Your task to perform on an android device: turn smart compose on in the gmail app Image 0: 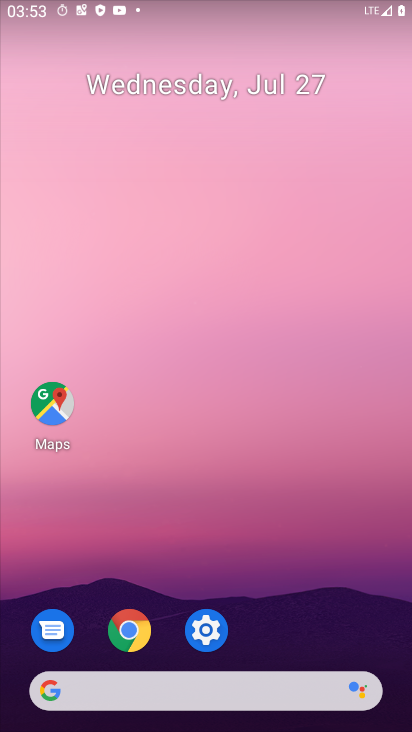
Step 0: drag from (221, 613) to (169, 203)
Your task to perform on an android device: turn smart compose on in the gmail app Image 1: 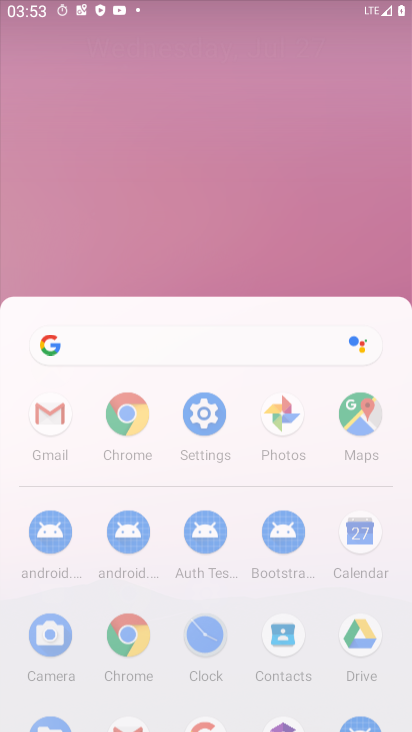
Step 1: drag from (280, 588) to (200, 96)
Your task to perform on an android device: turn smart compose on in the gmail app Image 2: 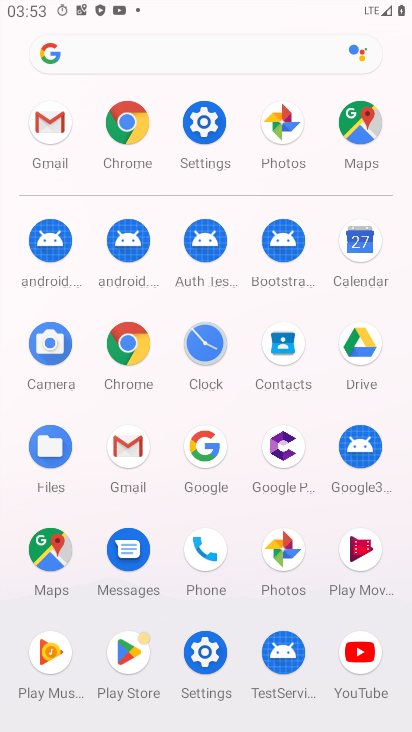
Step 2: drag from (225, 540) to (184, 275)
Your task to perform on an android device: turn smart compose on in the gmail app Image 3: 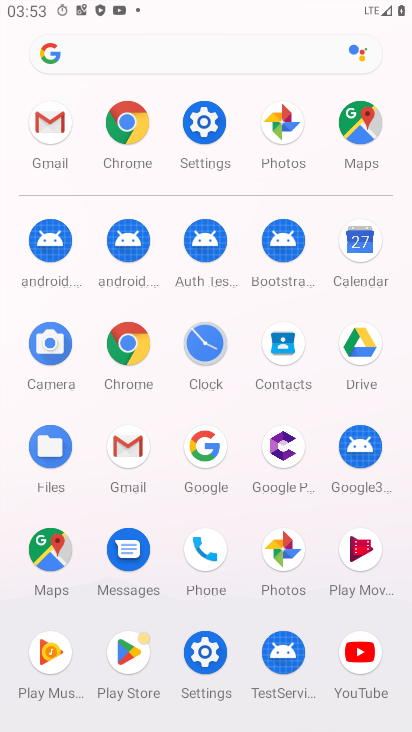
Step 3: click (118, 446)
Your task to perform on an android device: turn smart compose on in the gmail app Image 4: 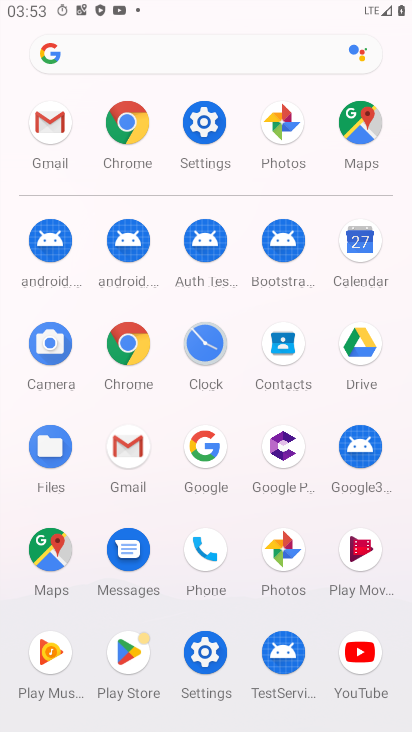
Step 4: click (123, 446)
Your task to perform on an android device: turn smart compose on in the gmail app Image 5: 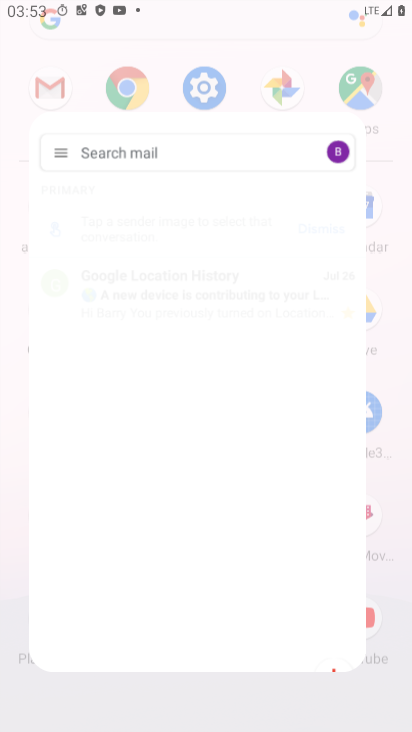
Step 5: click (128, 440)
Your task to perform on an android device: turn smart compose on in the gmail app Image 6: 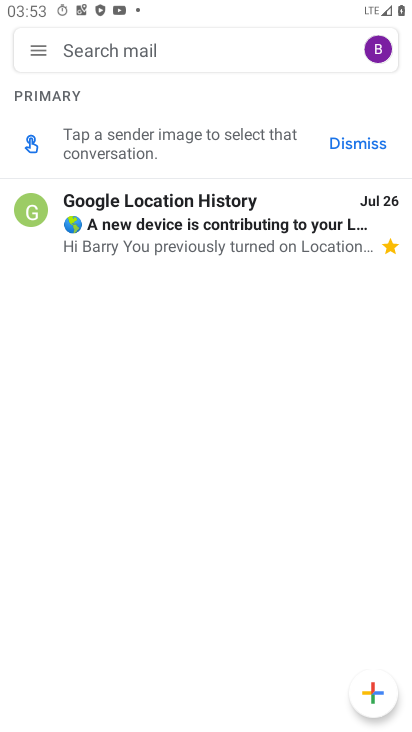
Step 6: click (38, 50)
Your task to perform on an android device: turn smart compose on in the gmail app Image 7: 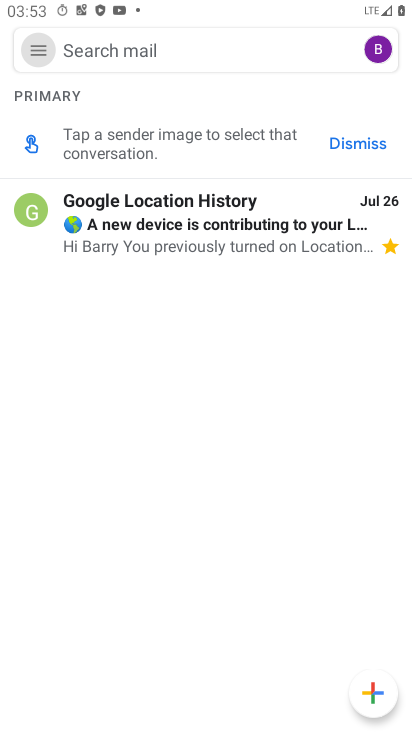
Step 7: click (33, 70)
Your task to perform on an android device: turn smart compose on in the gmail app Image 8: 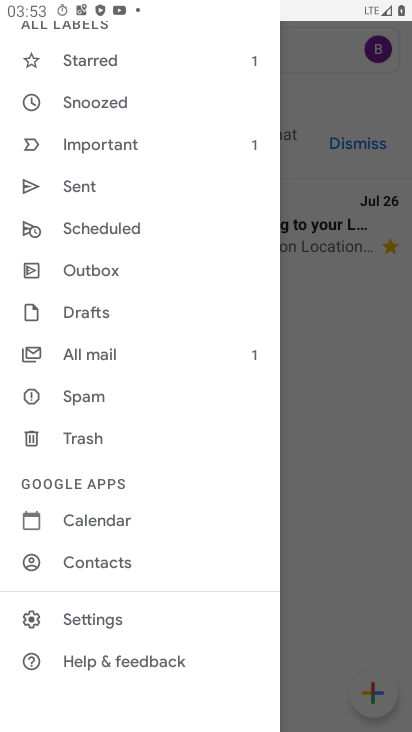
Step 8: click (84, 613)
Your task to perform on an android device: turn smart compose on in the gmail app Image 9: 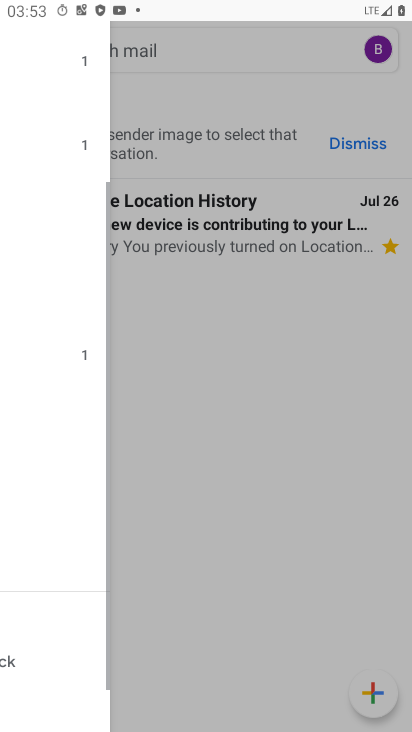
Step 9: click (84, 613)
Your task to perform on an android device: turn smart compose on in the gmail app Image 10: 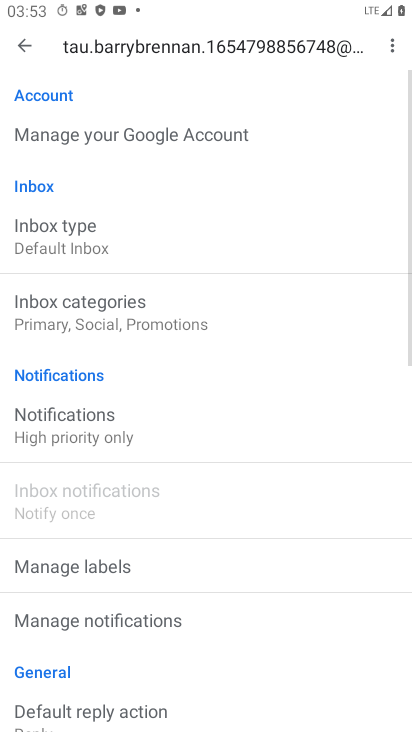
Step 10: task complete